Your task to perform on an android device: read, delete, or share a saved page in the chrome app Image 0: 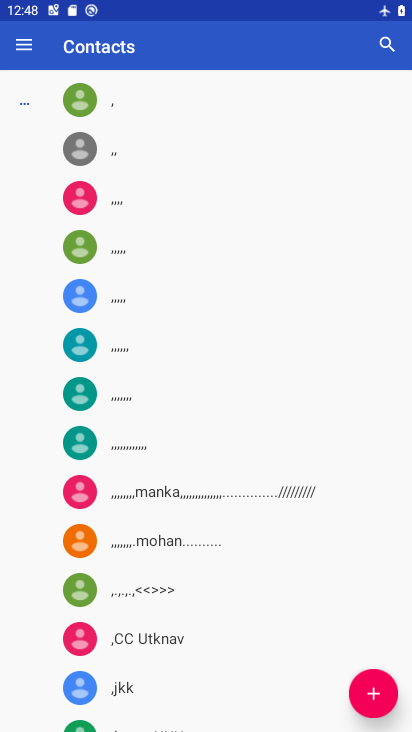
Step 0: press home button
Your task to perform on an android device: read, delete, or share a saved page in the chrome app Image 1: 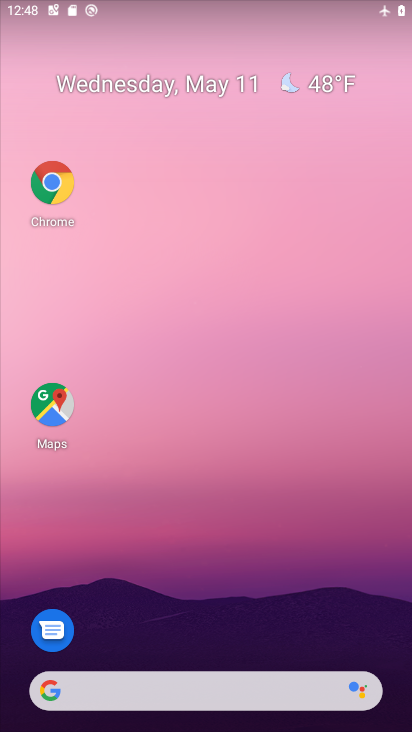
Step 1: drag from (217, 652) to (196, 19)
Your task to perform on an android device: read, delete, or share a saved page in the chrome app Image 2: 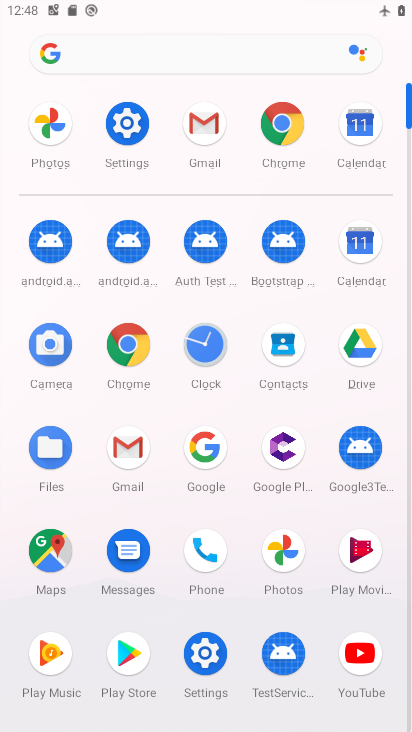
Step 2: click (265, 128)
Your task to perform on an android device: read, delete, or share a saved page in the chrome app Image 3: 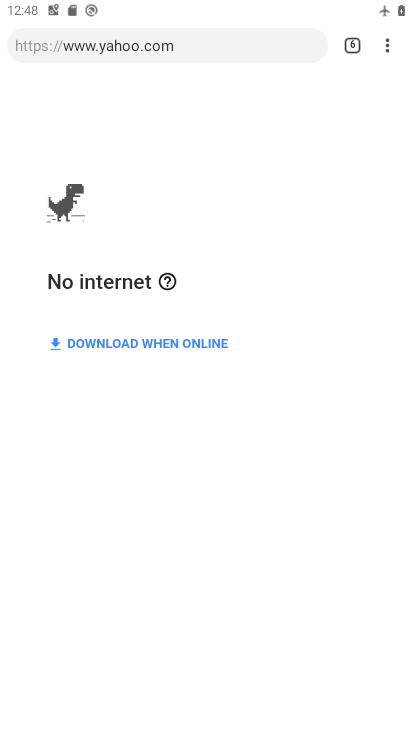
Step 3: click (374, 52)
Your task to perform on an android device: read, delete, or share a saved page in the chrome app Image 4: 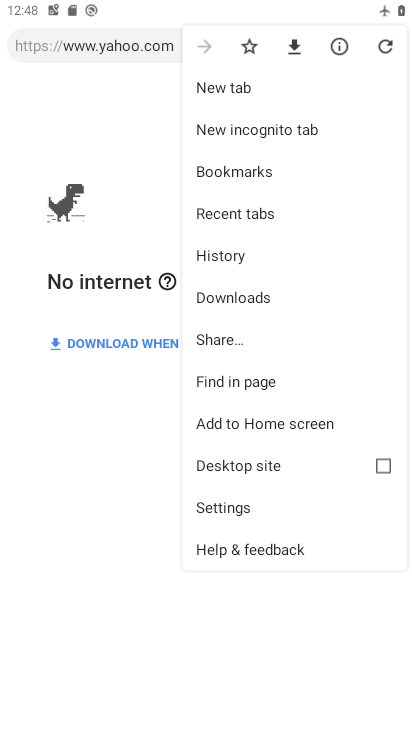
Step 4: click (247, 295)
Your task to perform on an android device: read, delete, or share a saved page in the chrome app Image 5: 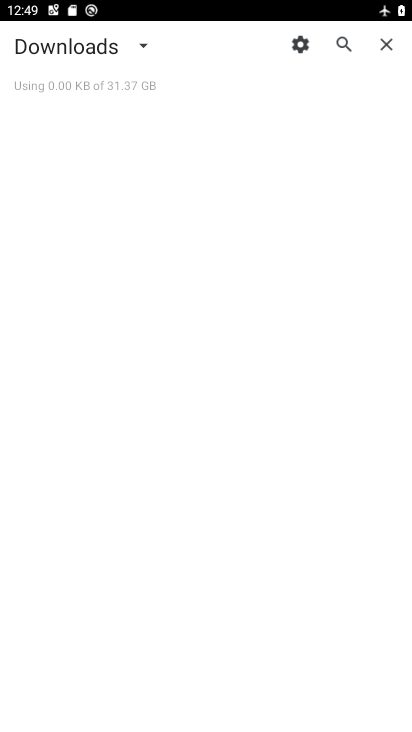
Step 5: task complete